Your task to perform on an android device: Open calendar and show me the second week of next month Image 0: 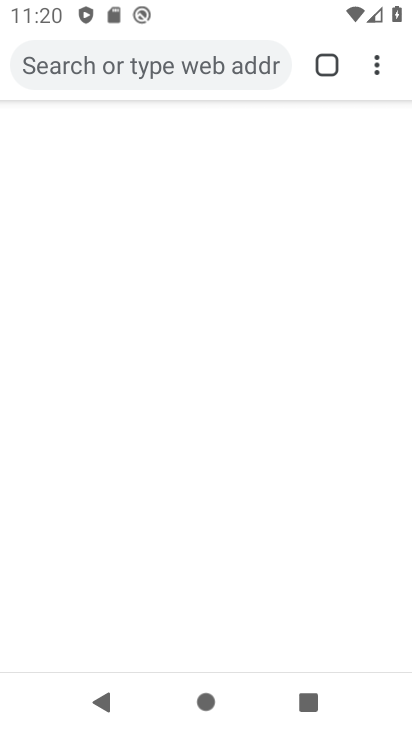
Step 0: drag from (179, 610) to (364, 10)
Your task to perform on an android device: Open calendar and show me the second week of next month Image 1: 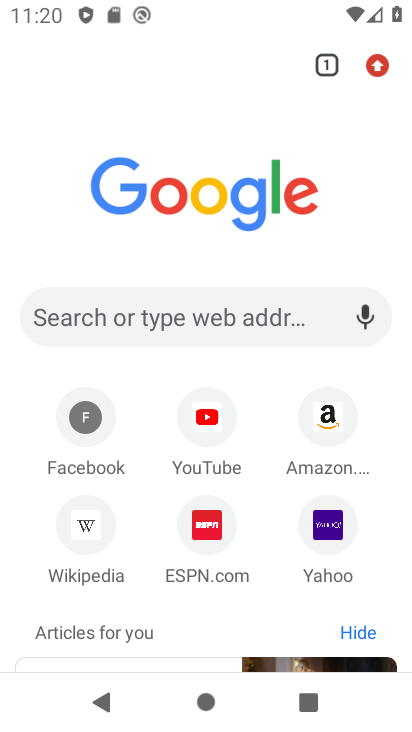
Step 1: press home button
Your task to perform on an android device: Open calendar and show me the second week of next month Image 2: 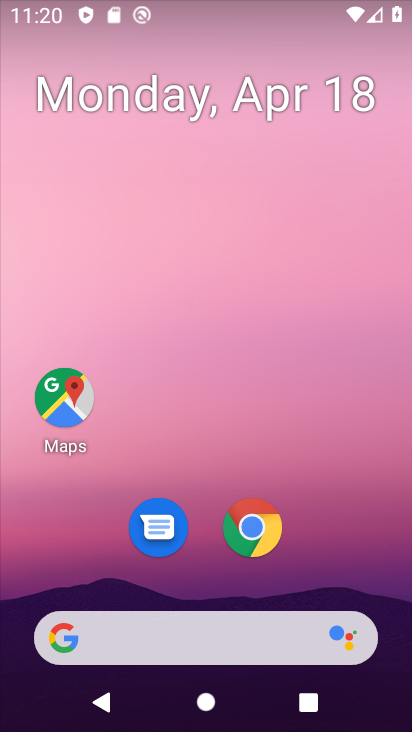
Step 2: drag from (214, 590) to (382, 3)
Your task to perform on an android device: Open calendar and show me the second week of next month Image 3: 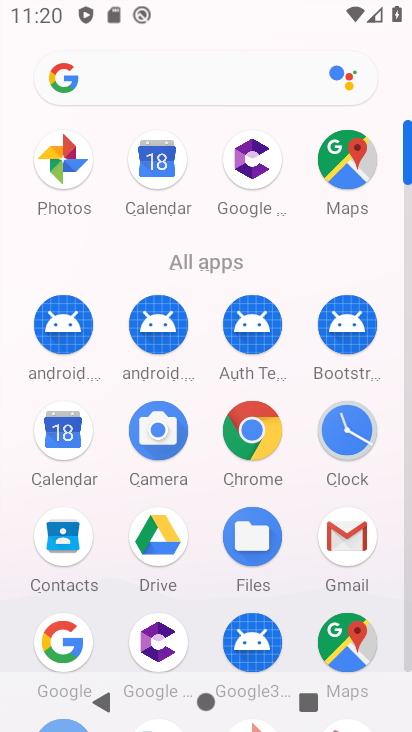
Step 3: click (60, 422)
Your task to perform on an android device: Open calendar and show me the second week of next month Image 4: 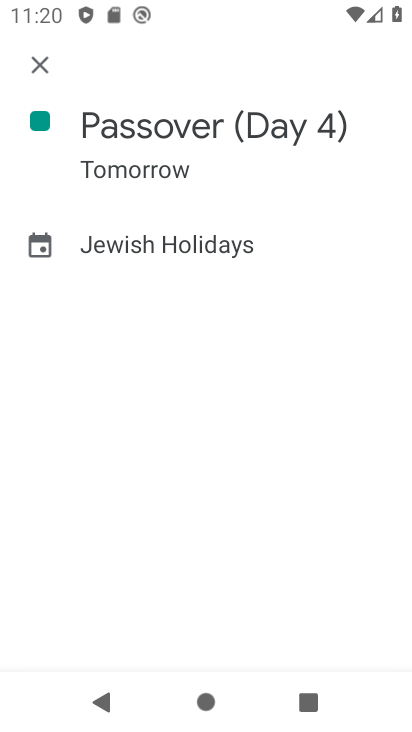
Step 4: click (34, 51)
Your task to perform on an android device: Open calendar and show me the second week of next month Image 5: 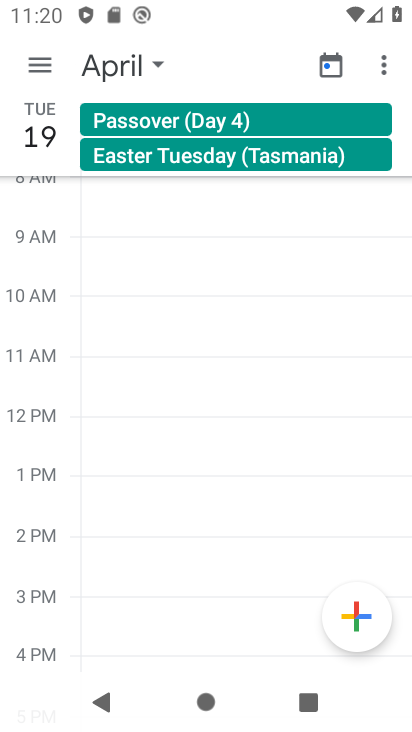
Step 5: click (30, 60)
Your task to perform on an android device: Open calendar and show me the second week of next month Image 6: 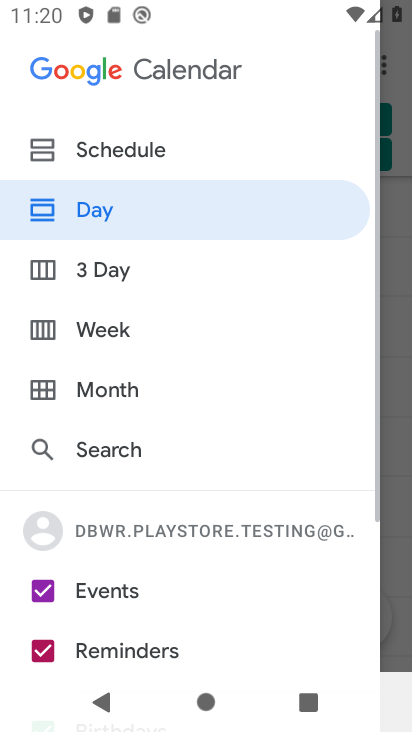
Step 6: click (124, 384)
Your task to perform on an android device: Open calendar and show me the second week of next month Image 7: 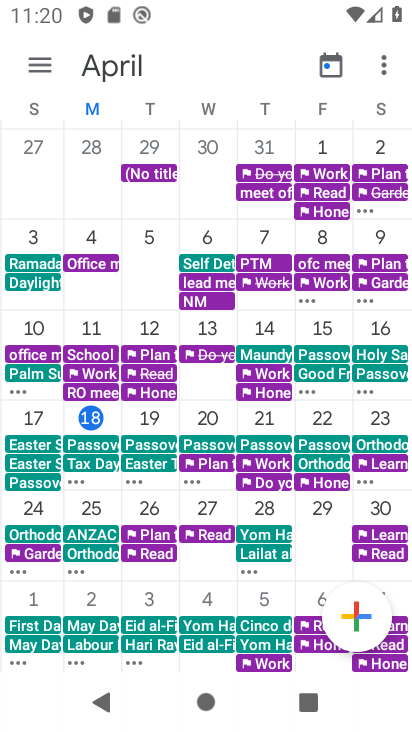
Step 7: task complete